Your task to perform on an android device: Go to internet settings Image 0: 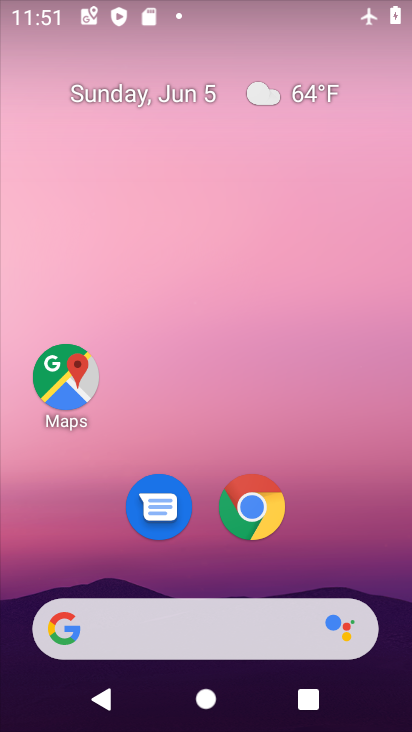
Step 0: drag from (334, 470) to (330, 152)
Your task to perform on an android device: Go to internet settings Image 1: 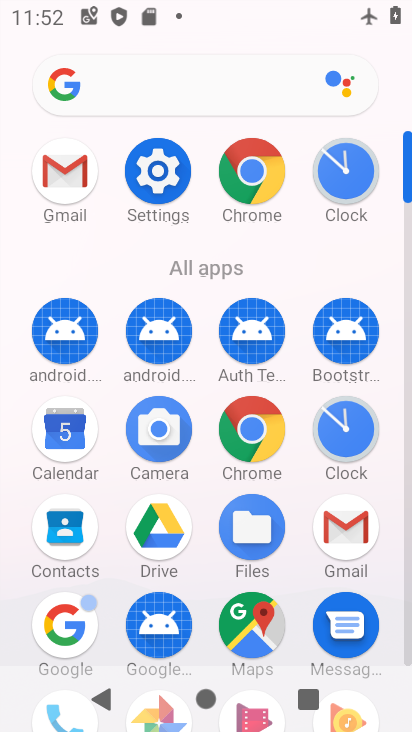
Step 1: click (151, 169)
Your task to perform on an android device: Go to internet settings Image 2: 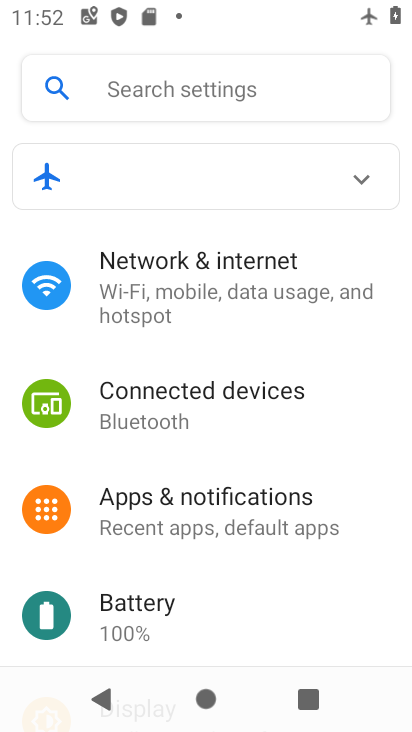
Step 2: click (172, 285)
Your task to perform on an android device: Go to internet settings Image 3: 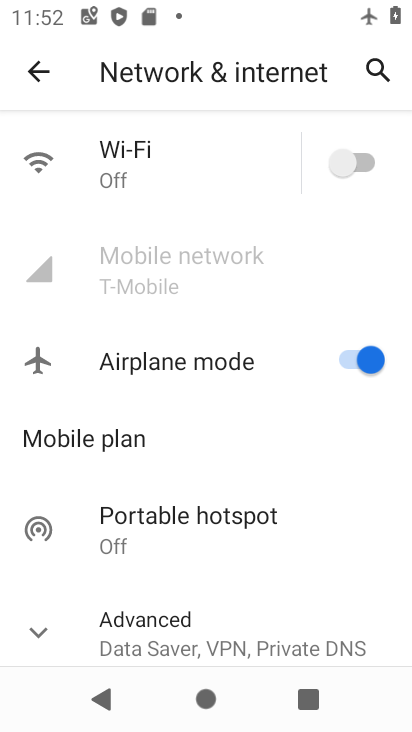
Step 3: task complete